Your task to perform on an android device: empty trash in google photos Image 0: 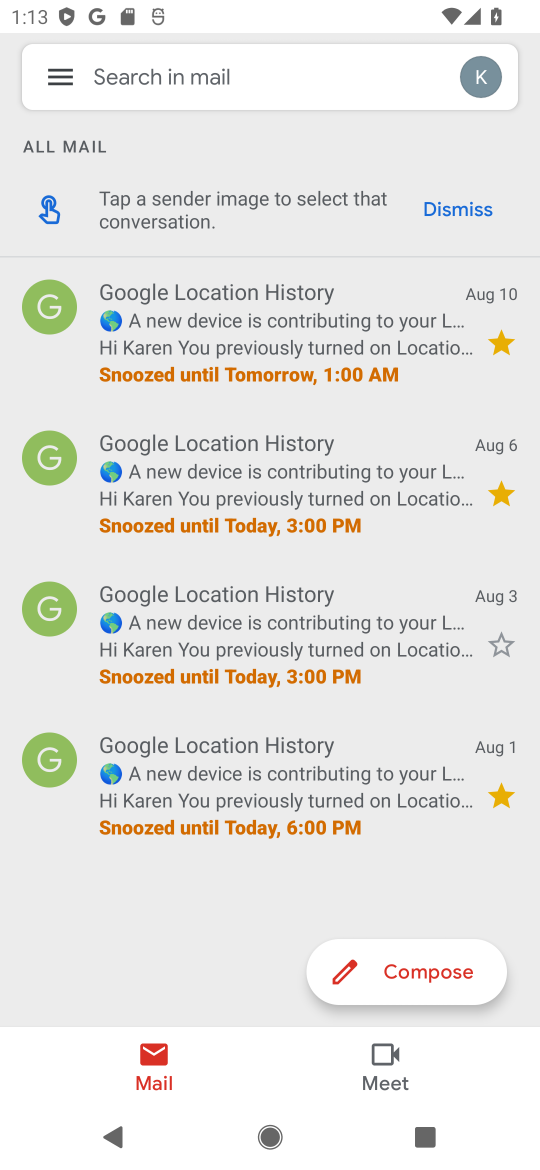
Step 0: press home button
Your task to perform on an android device: empty trash in google photos Image 1: 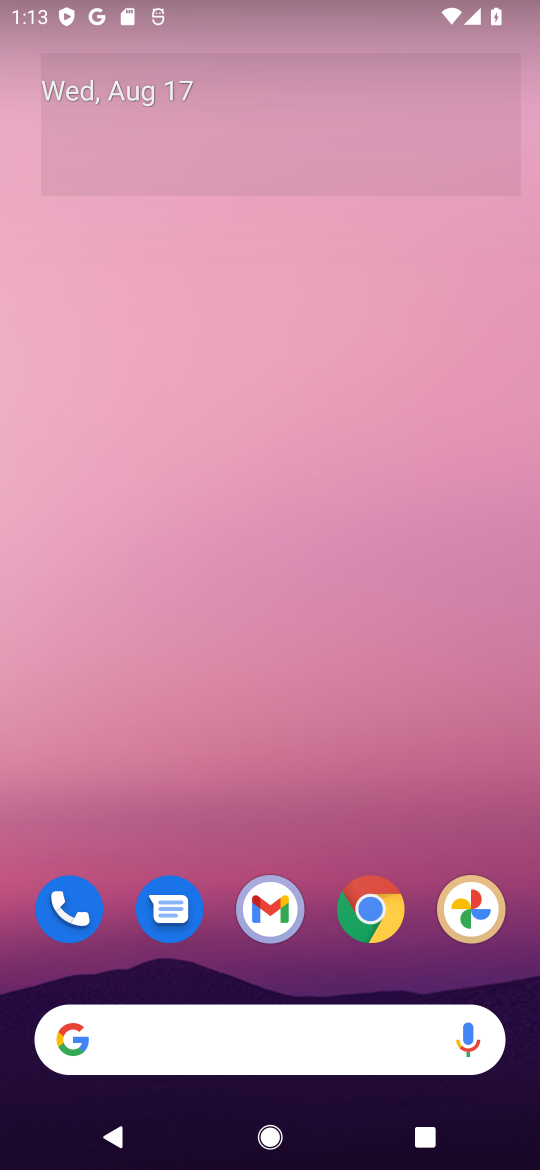
Step 1: click (474, 917)
Your task to perform on an android device: empty trash in google photos Image 2: 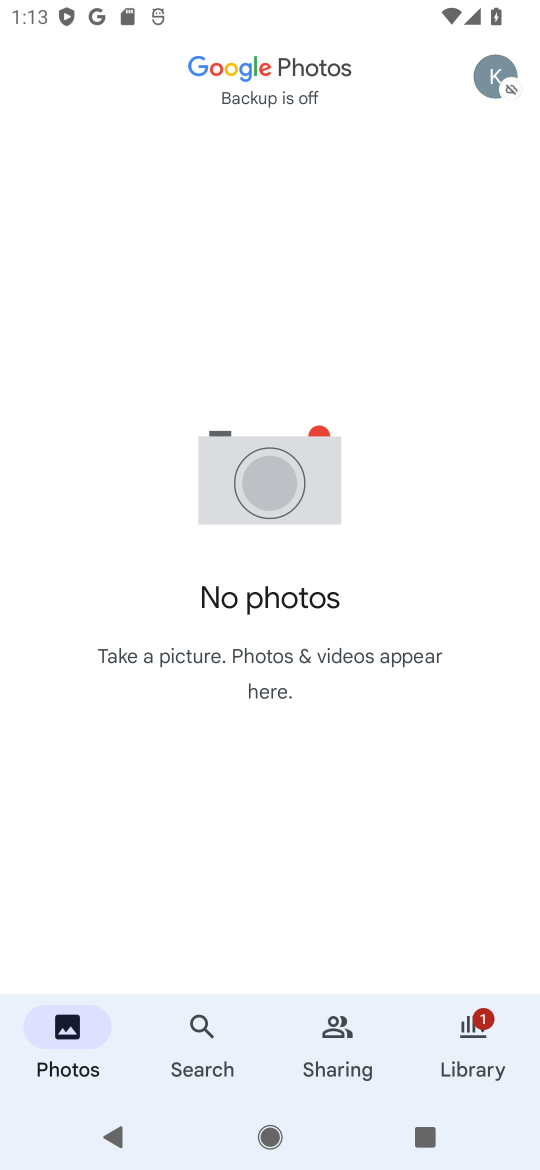
Step 2: click (465, 1041)
Your task to perform on an android device: empty trash in google photos Image 3: 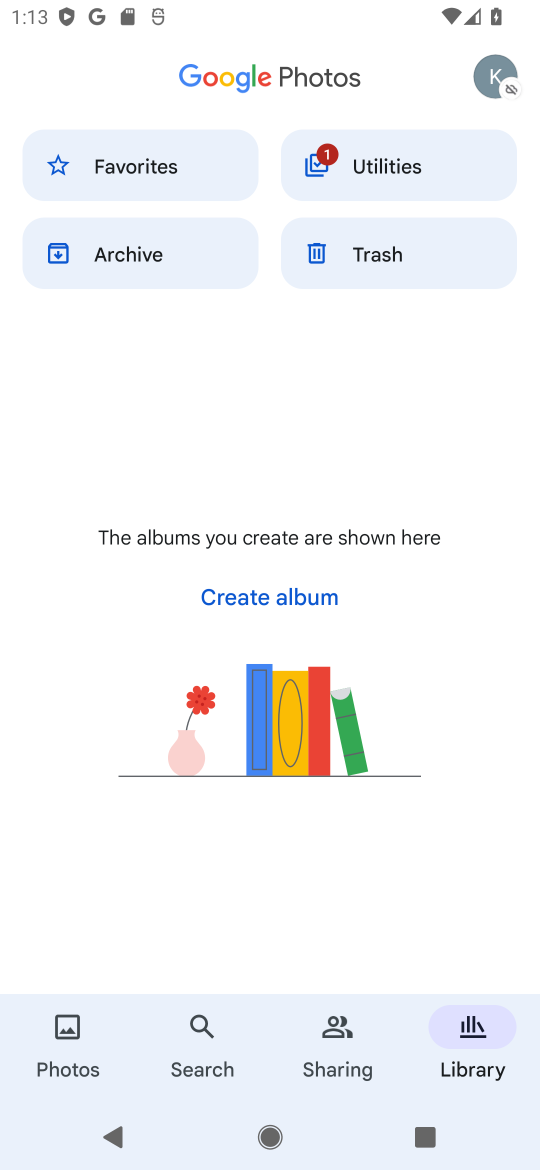
Step 3: click (388, 248)
Your task to perform on an android device: empty trash in google photos Image 4: 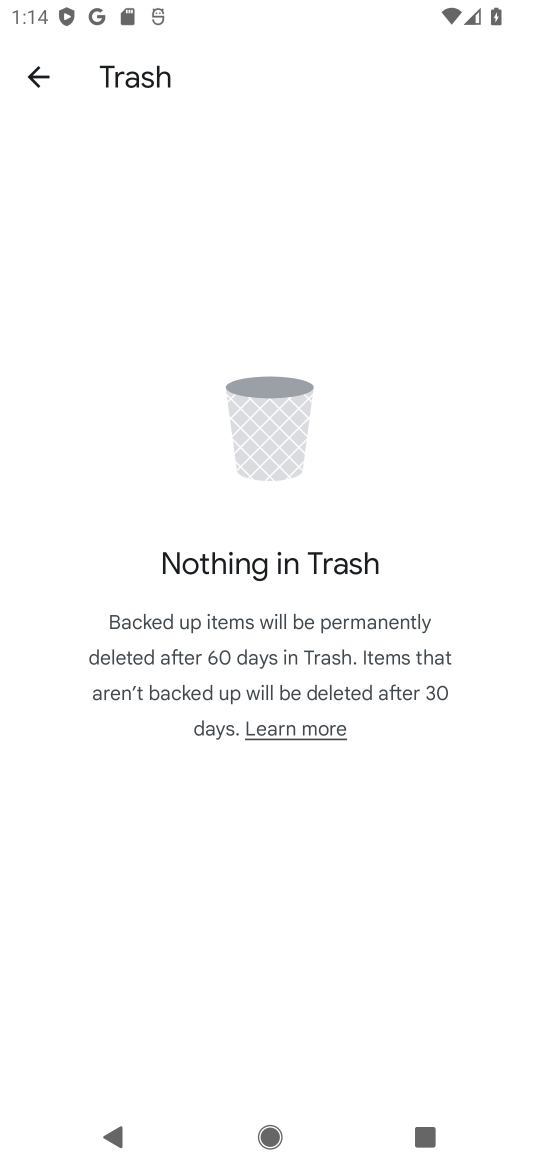
Step 4: task complete